Your task to perform on an android device: Open Android settings Image 0: 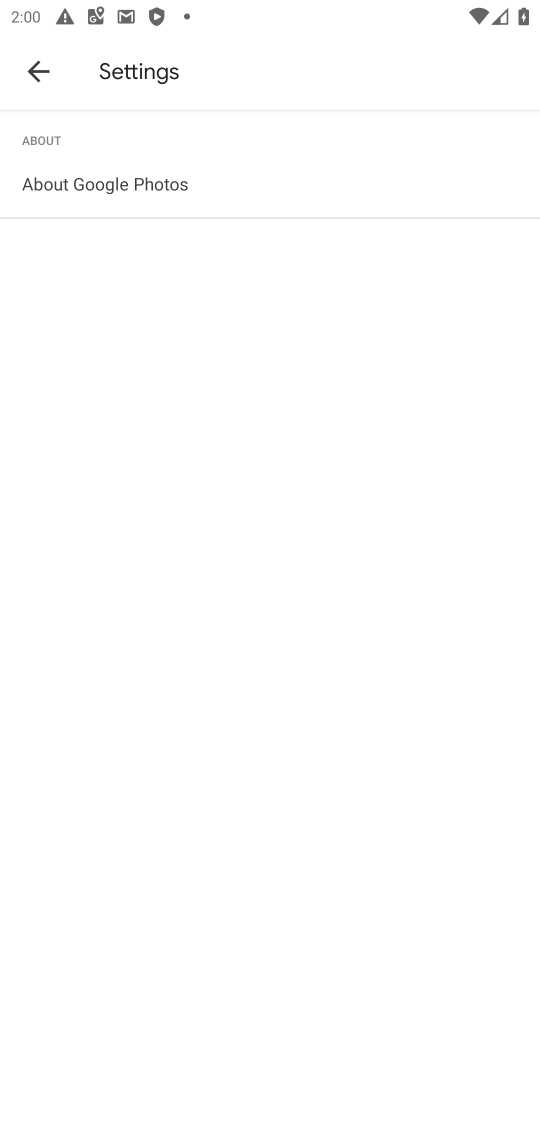
Step 0: press home button
Your task to perform on an android device: Open Android settings Image 1: 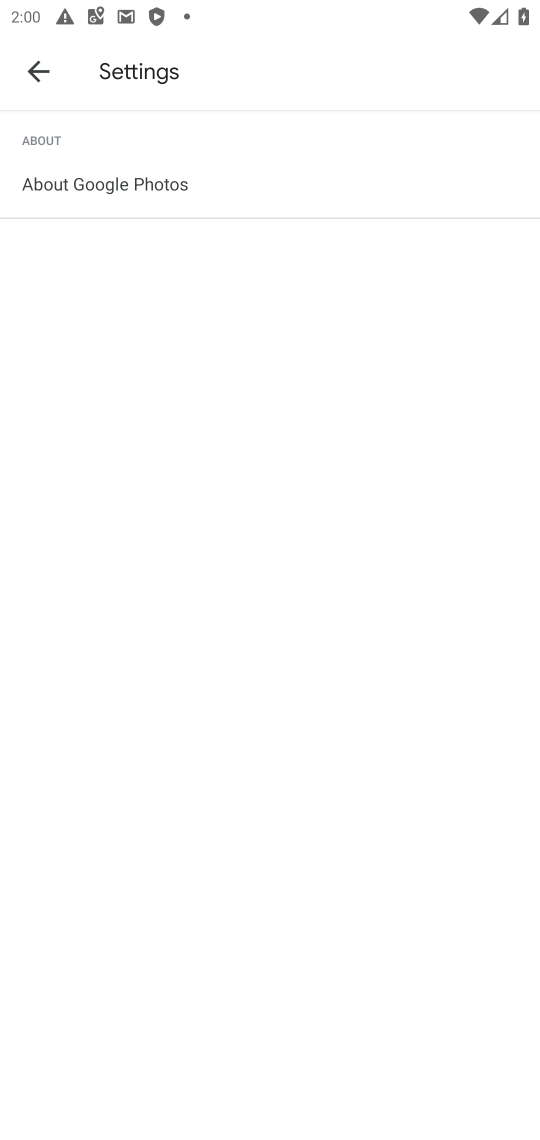
Step 1: press home button
Your task to perform on an android device: Open Android settings Image 2: 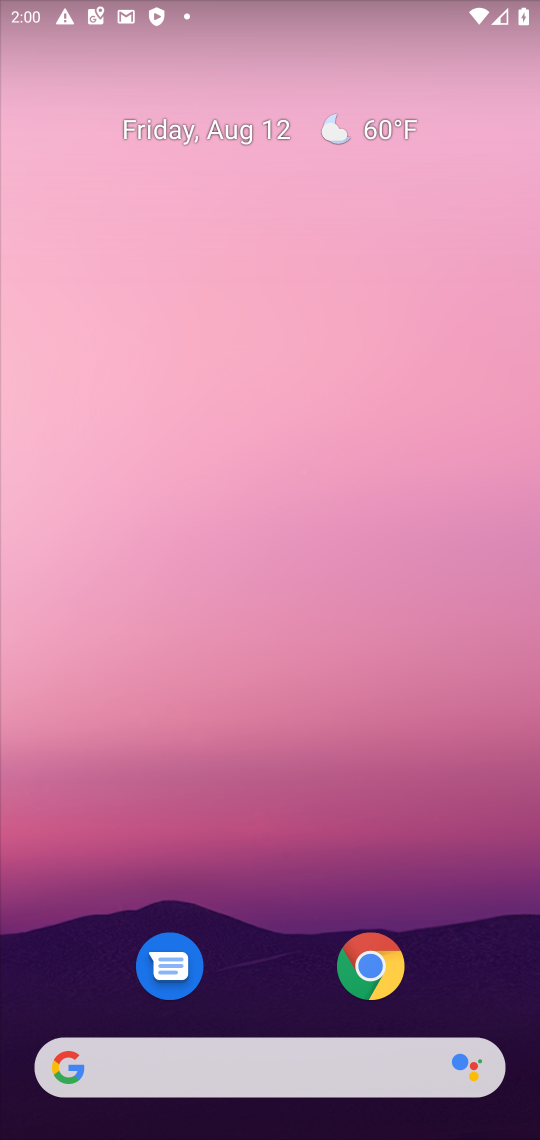
Step 2: drag from (285, 904) to (460, 168)
Your task to perform on an android device: Open Android settings Image 3: 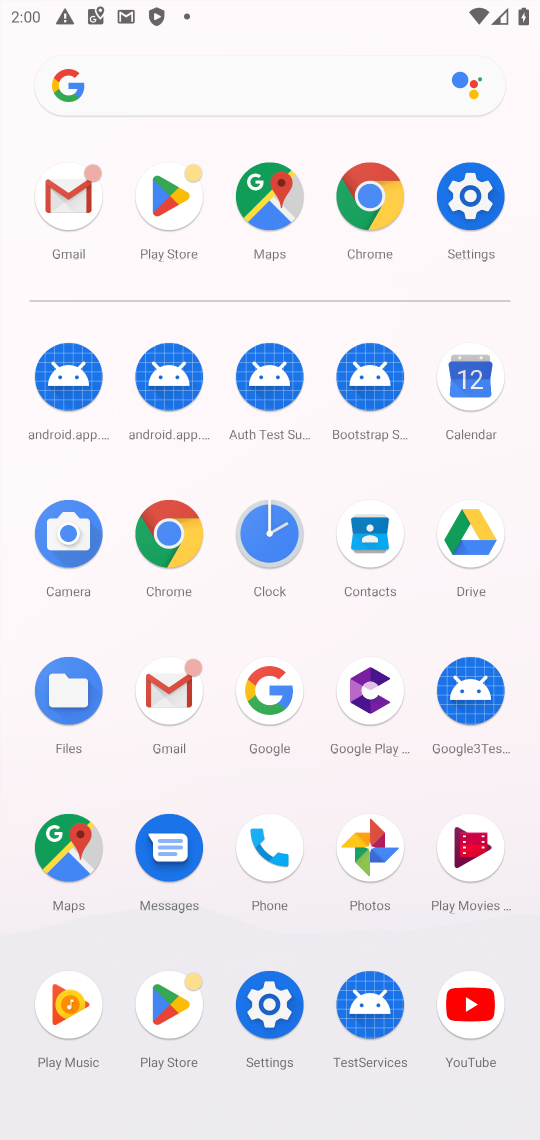
Step 3: click (268, 1010)
Your task to perform on an android device: Open Android settings Image 4: 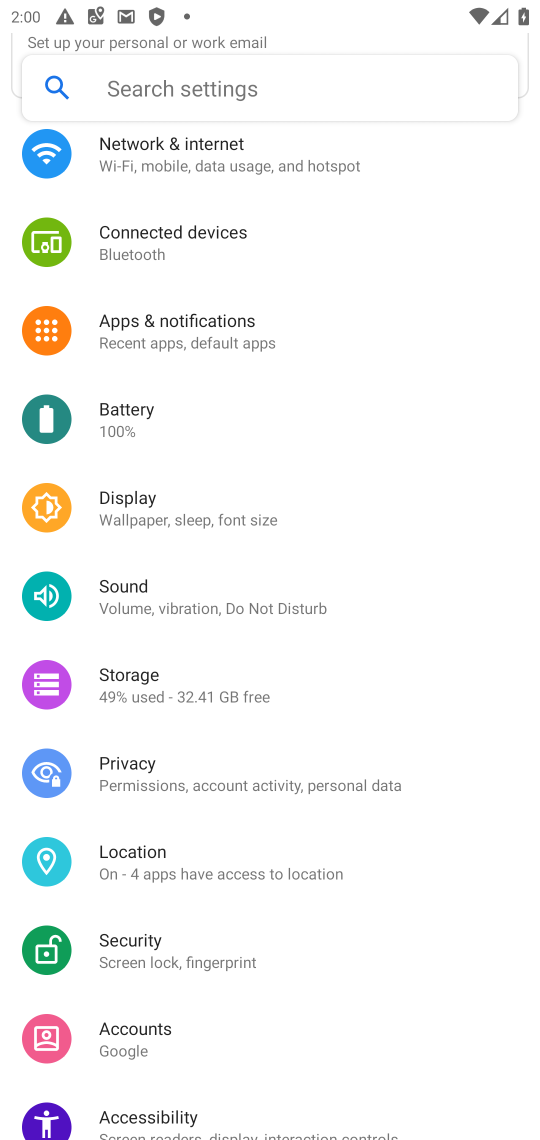
Step 4: task complete